Your task to perform on an android device: Open calendar and show me the second week of next month Image 0: 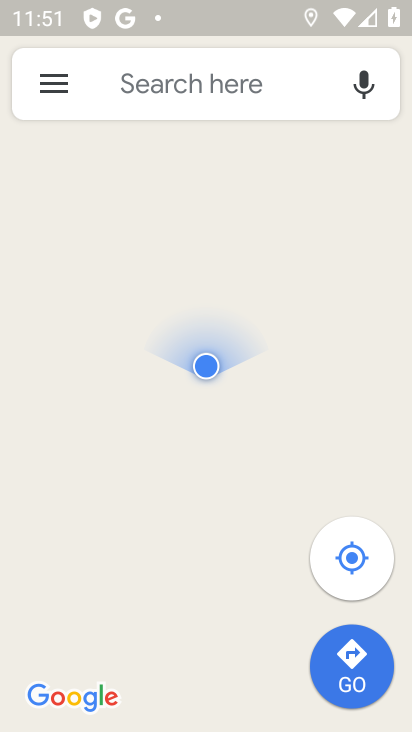
Step 0: press back button
Your task to perform on an android device: Open calendar and show me the second week of next month Image 1: 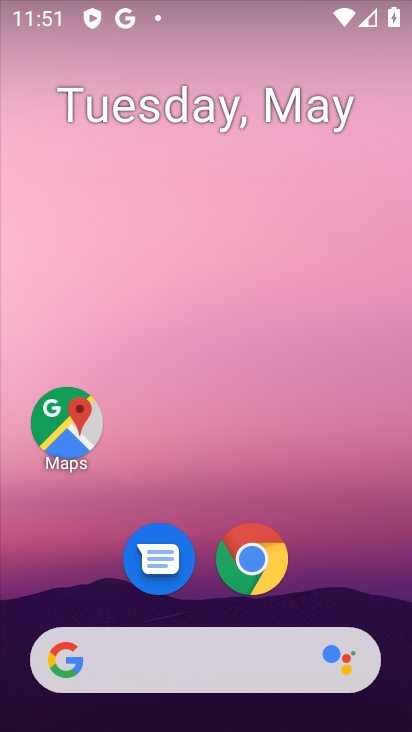
Step 1: drag from (317, 597) to (229, 33)
Your task to perform on an android device: Open calendar and show me the second week of next month Image 2: 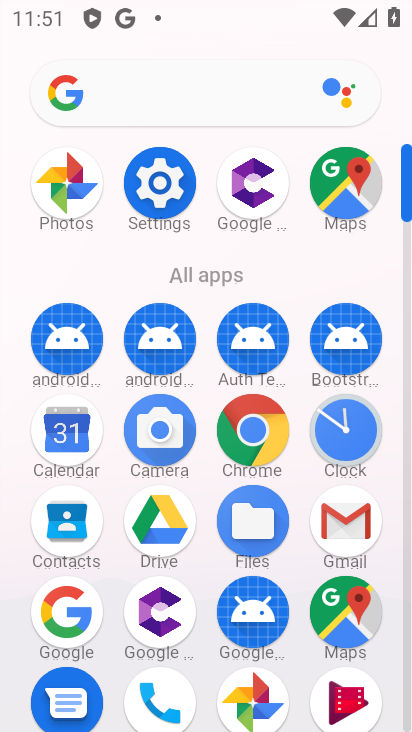
Step 2: click (68, 432)
Your task to perform on an android device: Open calendar and show me the second week of next month Image 3: 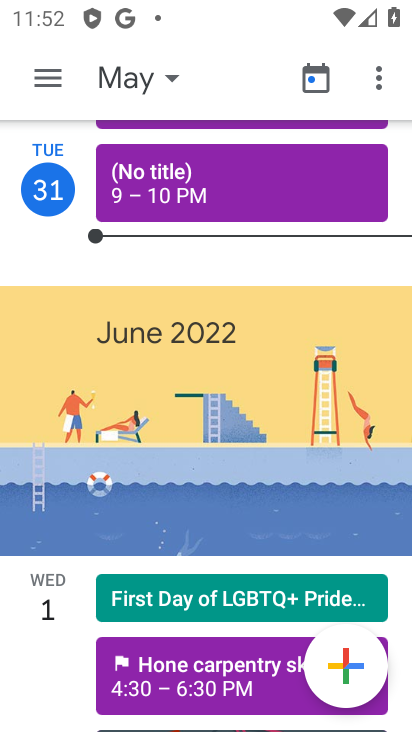
Step 3: click (174, 79)
Your task to perform on an android device: Open calendar and show me the second week of next month Image 4: 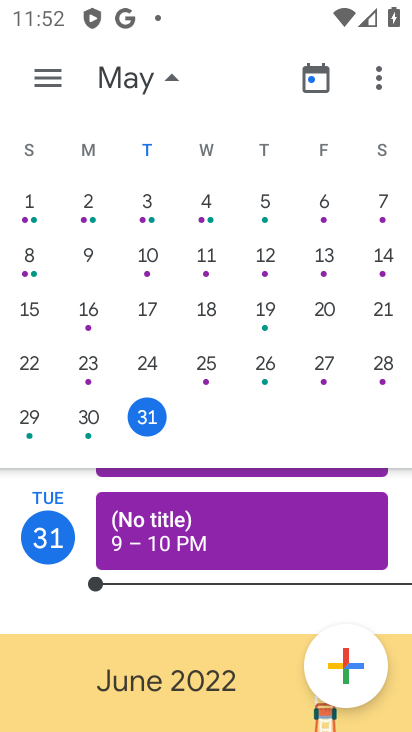
Step 4: drag from (360, 399) to (0, 325)
Your task to perform on an android device: Open calendar and show me the second week of next month Image 5: 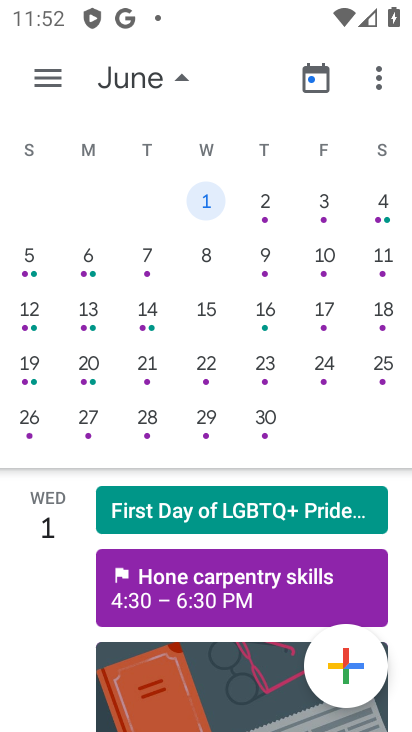
Step 5: click (93, 312)
Your task to perform on an android device: Open calendar and show me the second week of next month Image 6: 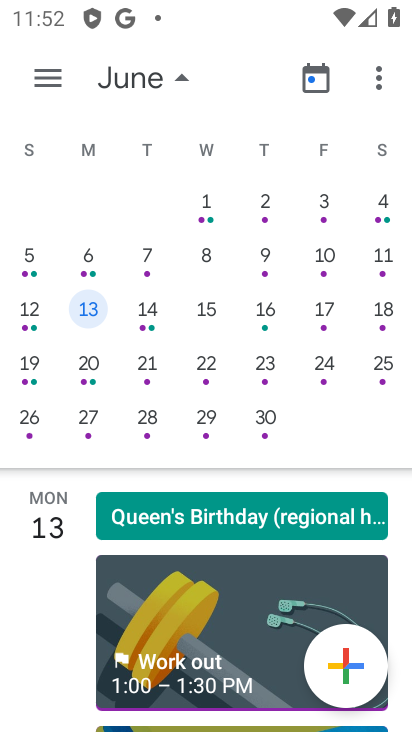
Step 6: click (55, 78)
Your task to perform on an android device: Open calendar and show me the second week of next month Image 7: 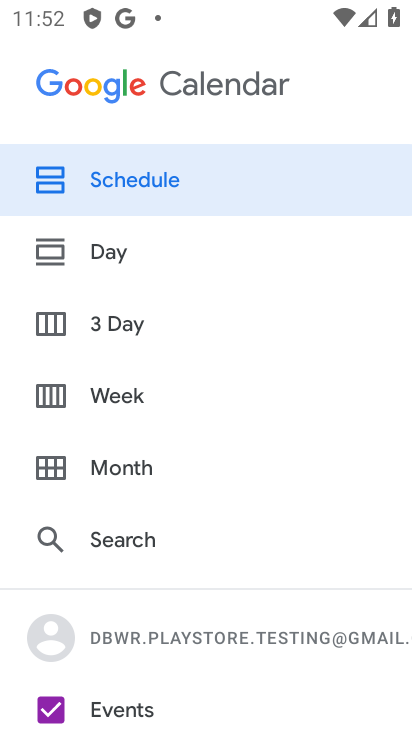
Step 7: click (114, 399)
Your task to perform on an android device: Open calendar and show me the second week of next month Image 8: 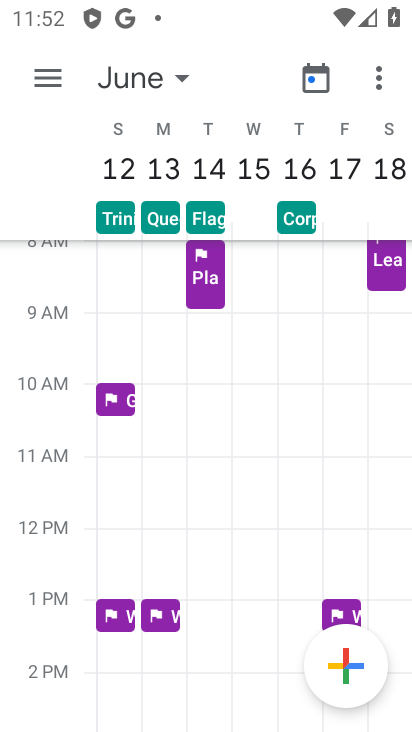
Step 8: task complete